Your task to perform on an android device: see creations saved in the google photos Image 0: 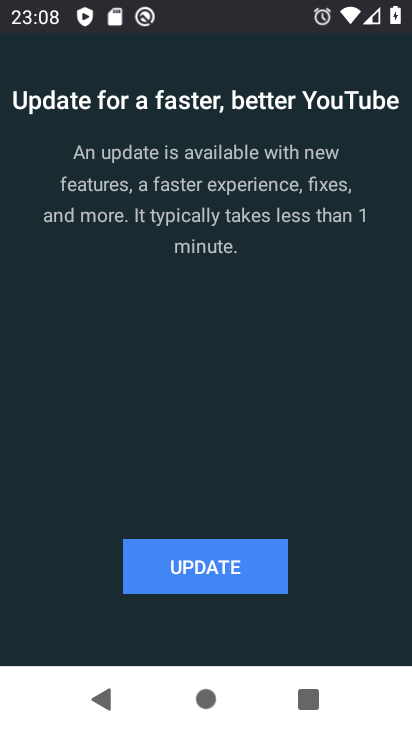
Step 0: press home button
Your task to perform on an android device: see creations saved in the google photos Image 1: 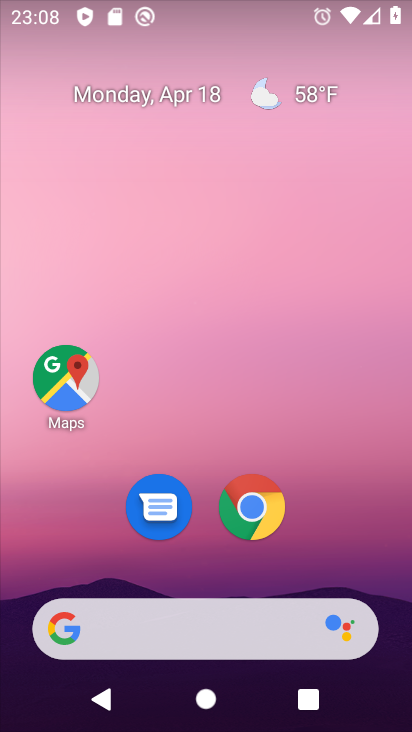
Step 1: drag from (219, 426) to (212, 42)
Your task to perform on an android device: see creations saved in the google photos Image 2: 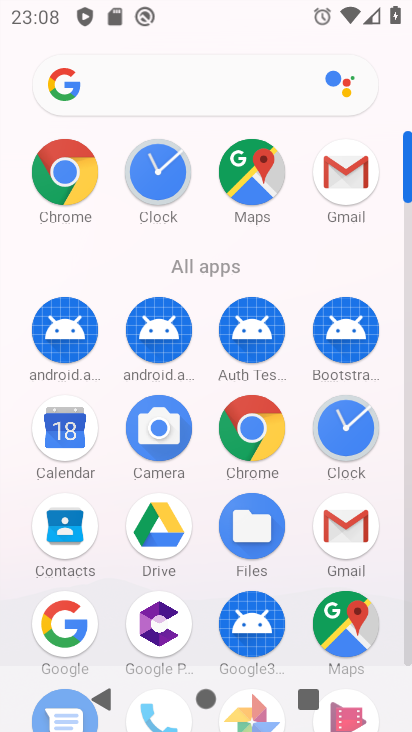
Step 2: drag from (201, 605) to (176, 140)
Your task to perform on an android device: see creations saved in the google photos Image 3: 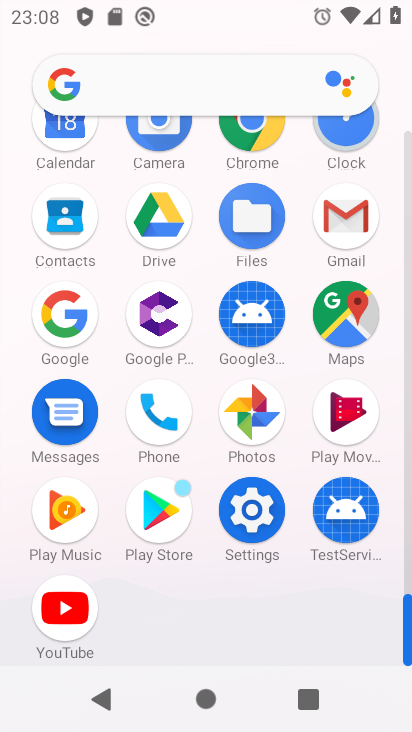
Step 3: click (224, 421)
Your task to perform on an android device: see creations saved in the google photos Image 4: 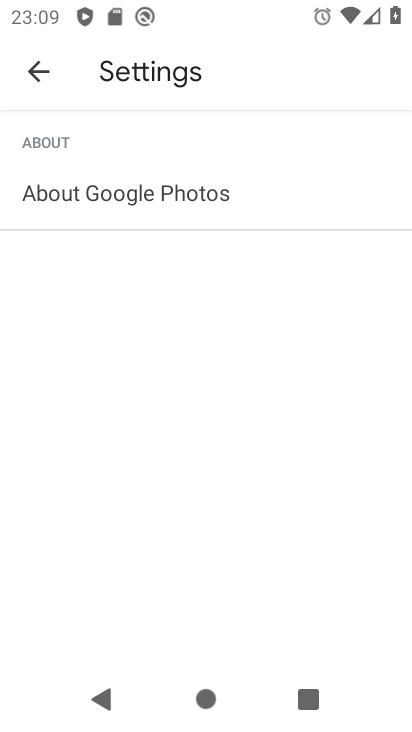
Step 4: click (48, 83)
Your task to perform on an android device: see creations saved in the google photos Image 5: 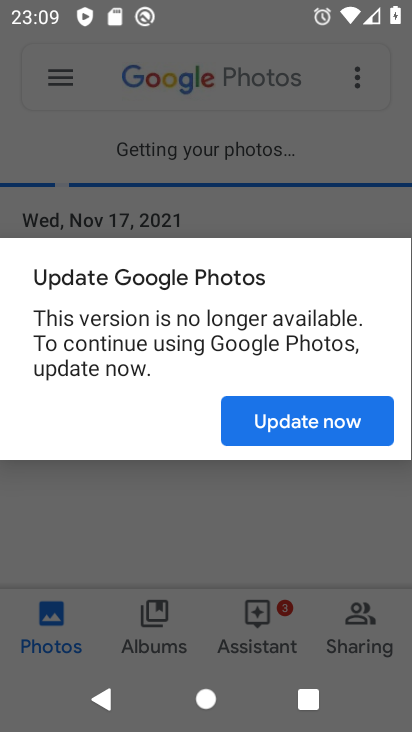
Step 5: click (109, 329)
Your task to perform on an android device: see creations saved in the google photos Image 6: 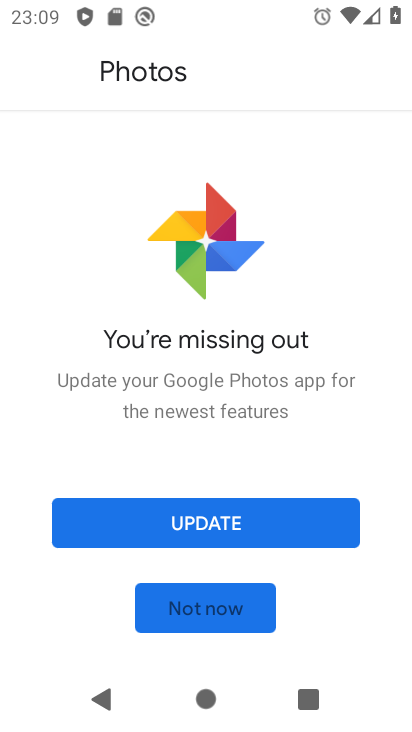
Step 6: click (231, 597)
Your task to perform on an android device: see creations saved in the google photos Image 7: 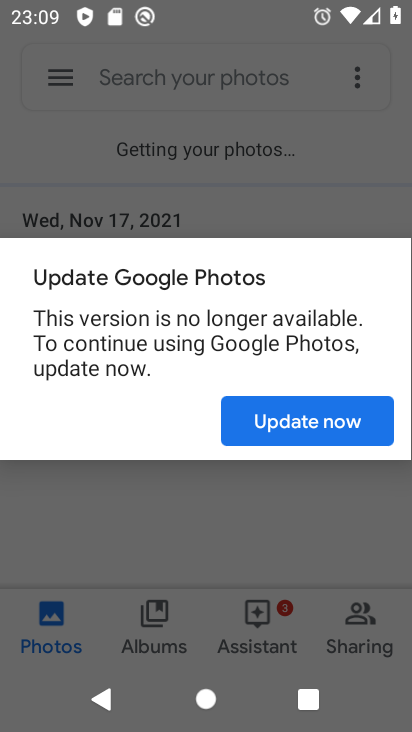
Step 7: click (300, 425)
Your task to perform on an android device: see creations saved in the google photos Image 8: 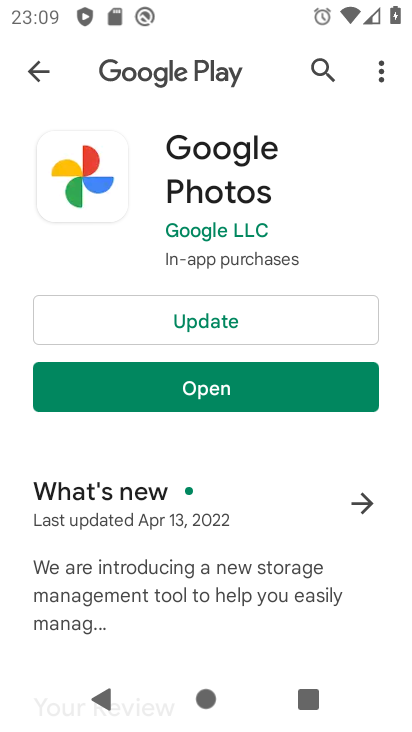
Step 8: click (275, 400)
Your task to perform on an android device: see creations saved in the google photos Image 9: 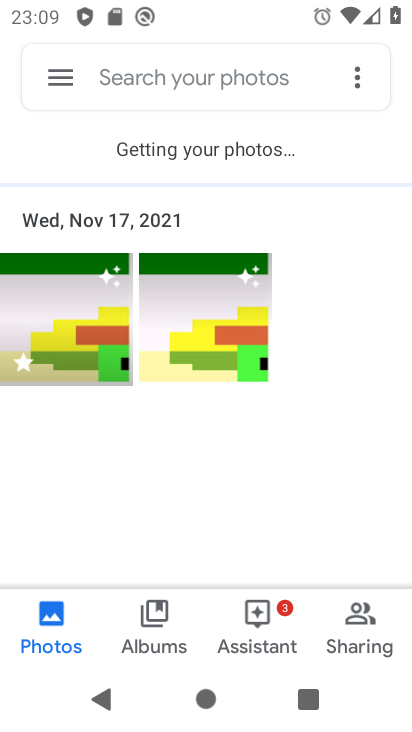
Step 9: click (168, 624)
Your task to perform on an android device: see creations saved in the google photos Image 10: 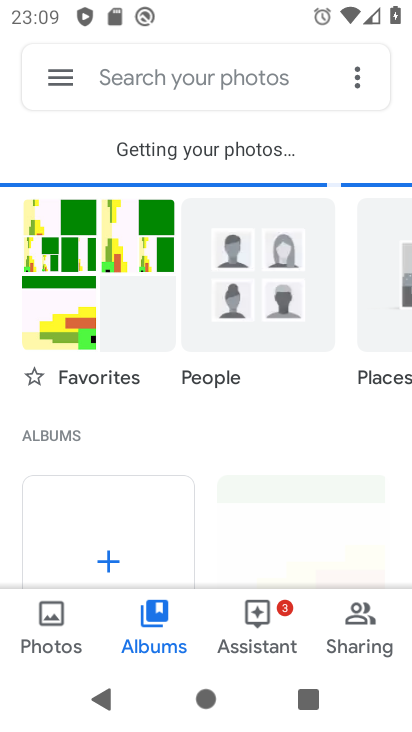
Step 10: click (261, 614)
Your task to perform on an android device: see creations saved in the google photos Image 11: 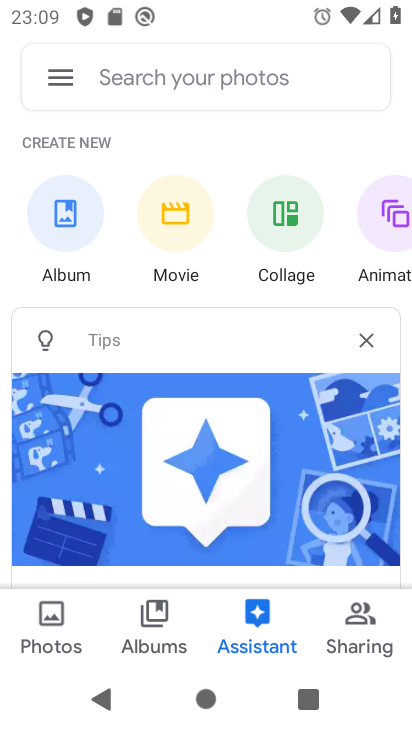
Step 11: click (369, 637)
Your task to perform on an android device: see creations saved in the google photos Image 12: 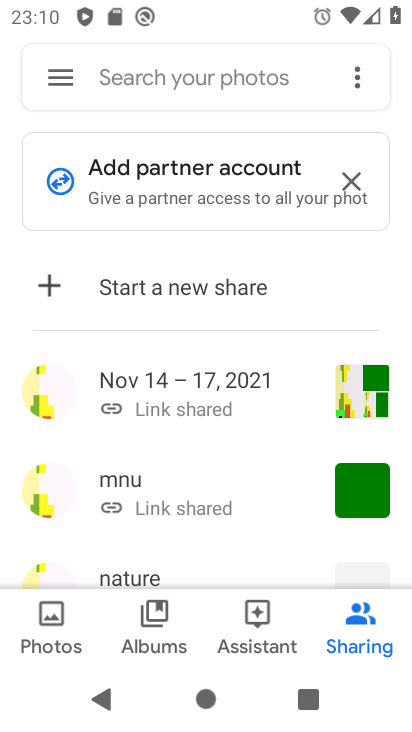
Step 12: click (372, 98)
Your task to perform on an android device: see creations saved in the google photos Image 13: 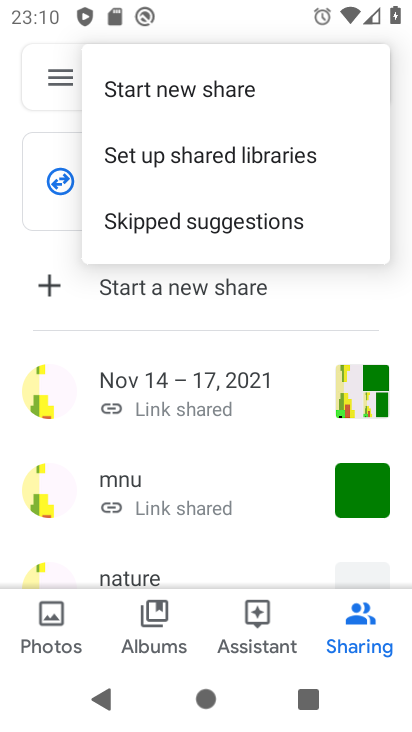
Step 13: click (48, 56)
Your task to perform on an android device: see creations saved in the google photos Image 14: 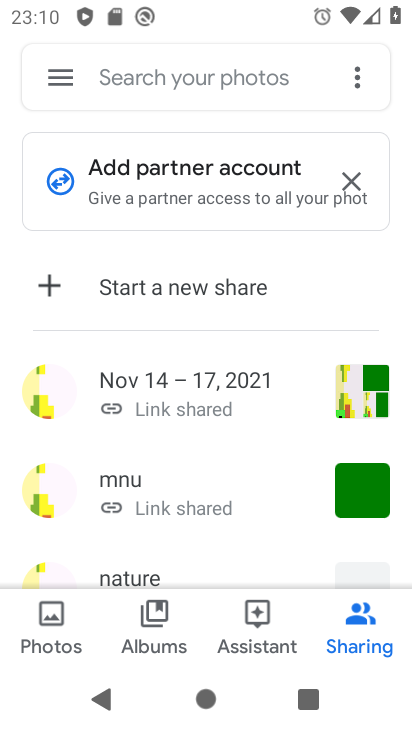
Step 14: click (53, 75)
Your task to perform on an android device: see creations saved in the google photos Image 15: 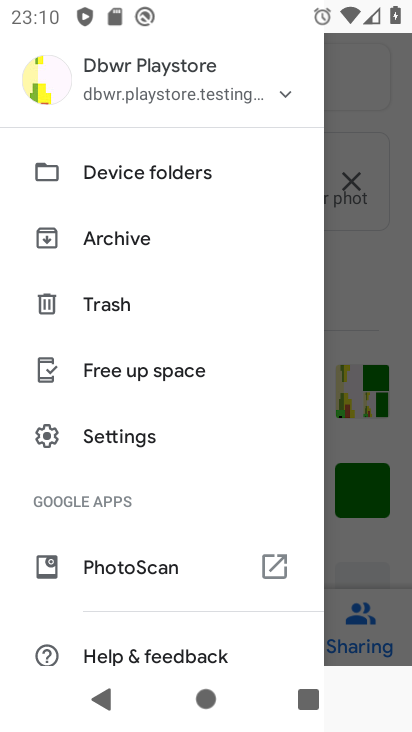
Step 15: click (133, 453)
Your task to perform on an android device: see creations saved in the google photos Image 16: 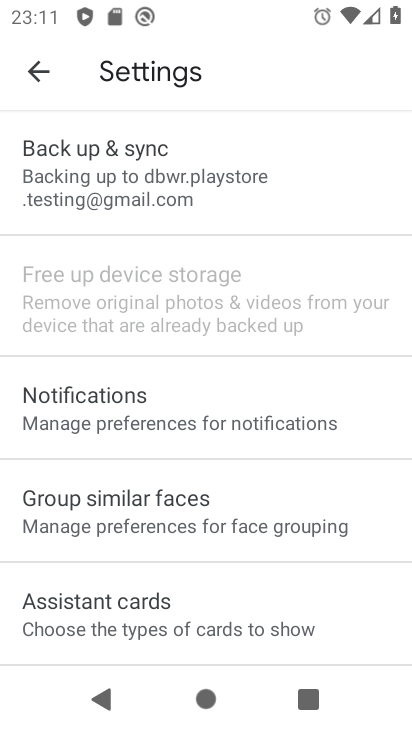
Step 16: task complete